Your task to perform on an android device: all mails in gmail Image 0: 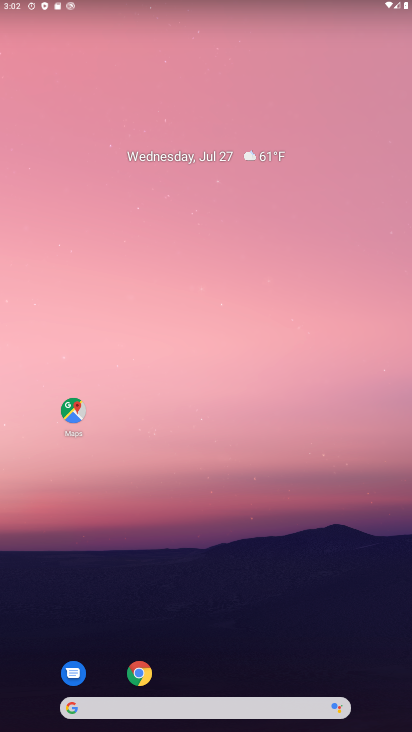
Step 0: drag from (38, 695) to (330, 82)
Your task to perform on an android device: all mails in gmail Image 1: 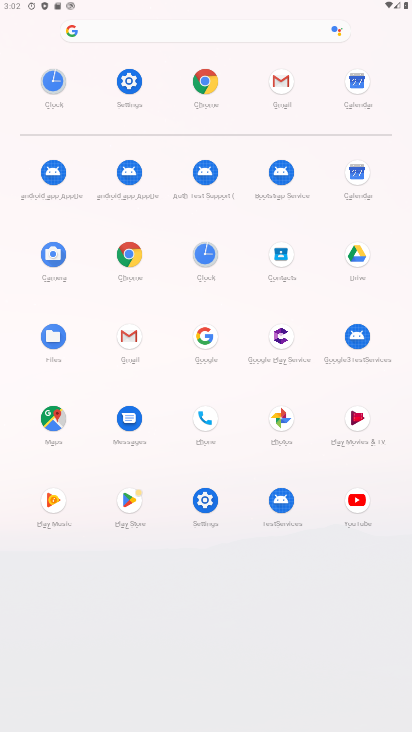
Step 1: click (119, 332)
Your task to perform on an android device: all mails in gmail Image 2: 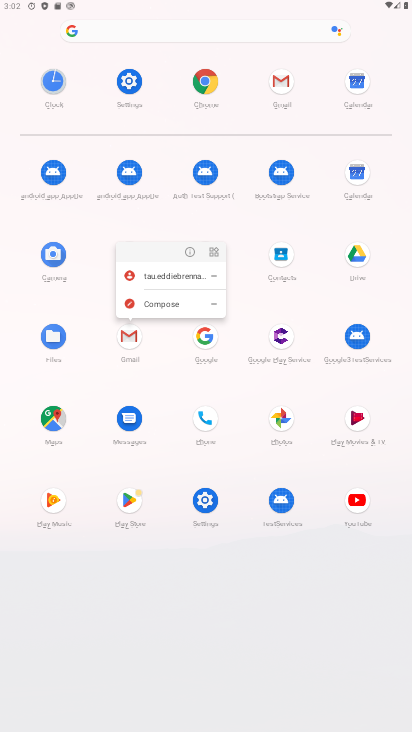
Step 2: click (123, 342)
Your task to perform on an android device: all mails in gmail Image 3: 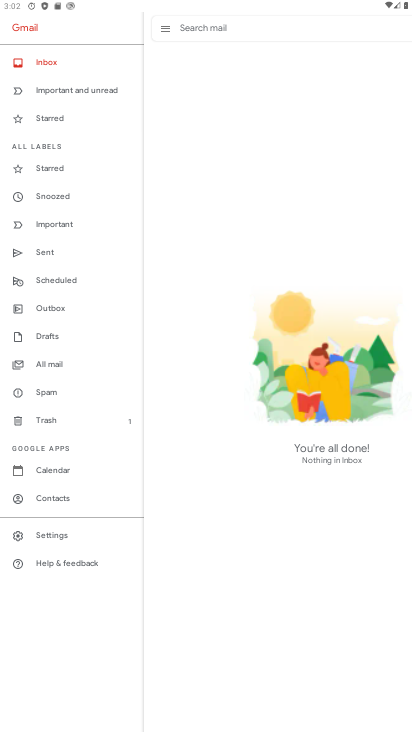
Step 3: click (54, 362)
Your task to perform on an android device: all mails in gmail Image 4: 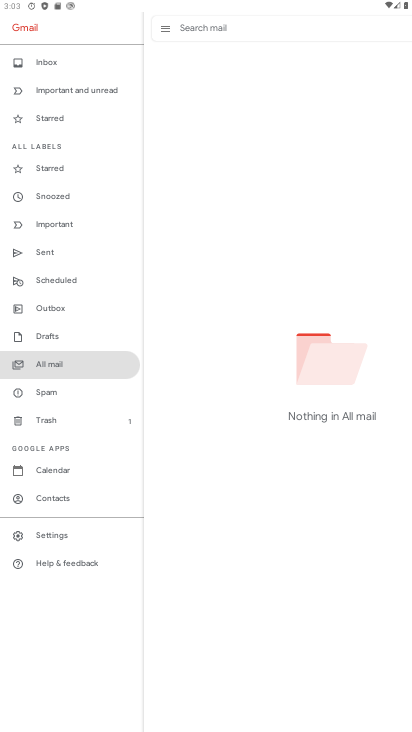
Step 4: task complete